Your task to perform on an android device: open app "The Home Depot" (install if not already installed) Image 0: 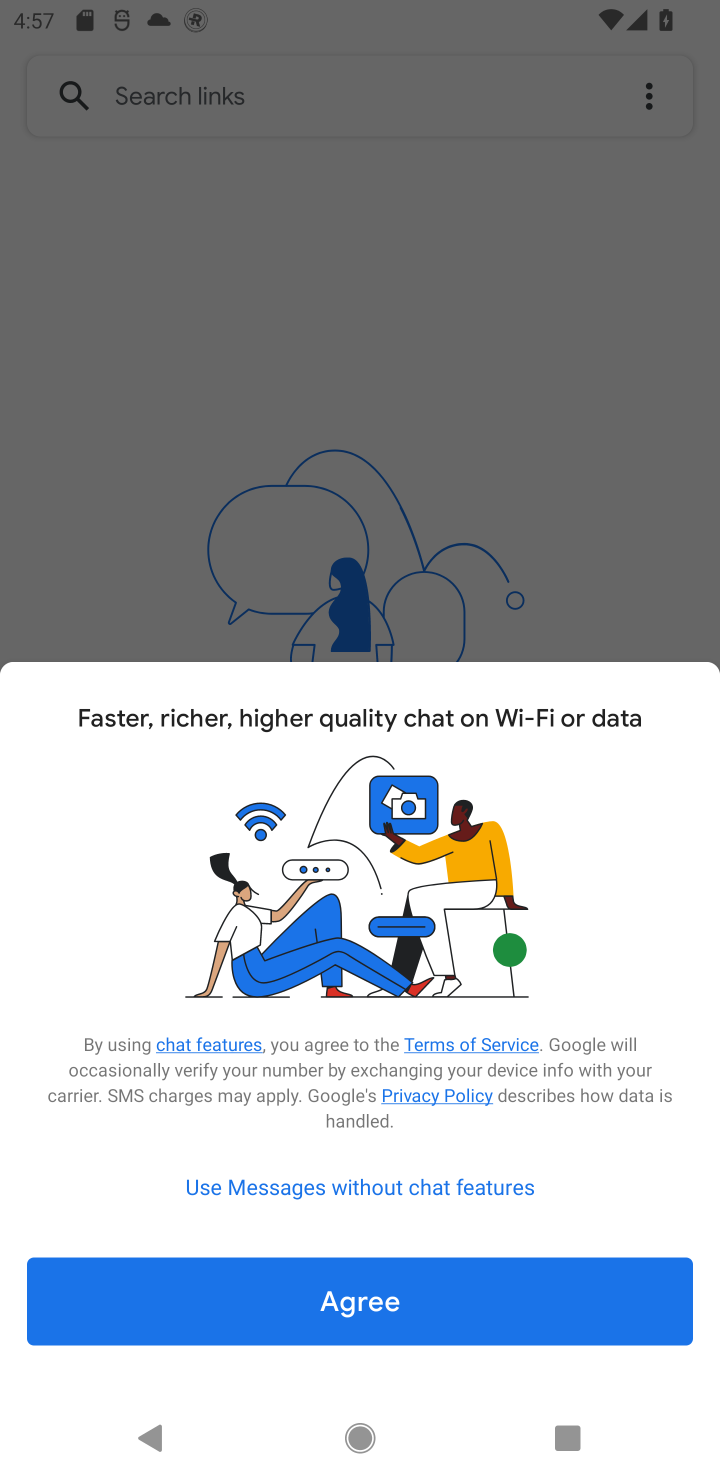
Step 0: press home button
Your task to perform on an android device: open app "The Home Depot" (install if not already installed) Image 1: 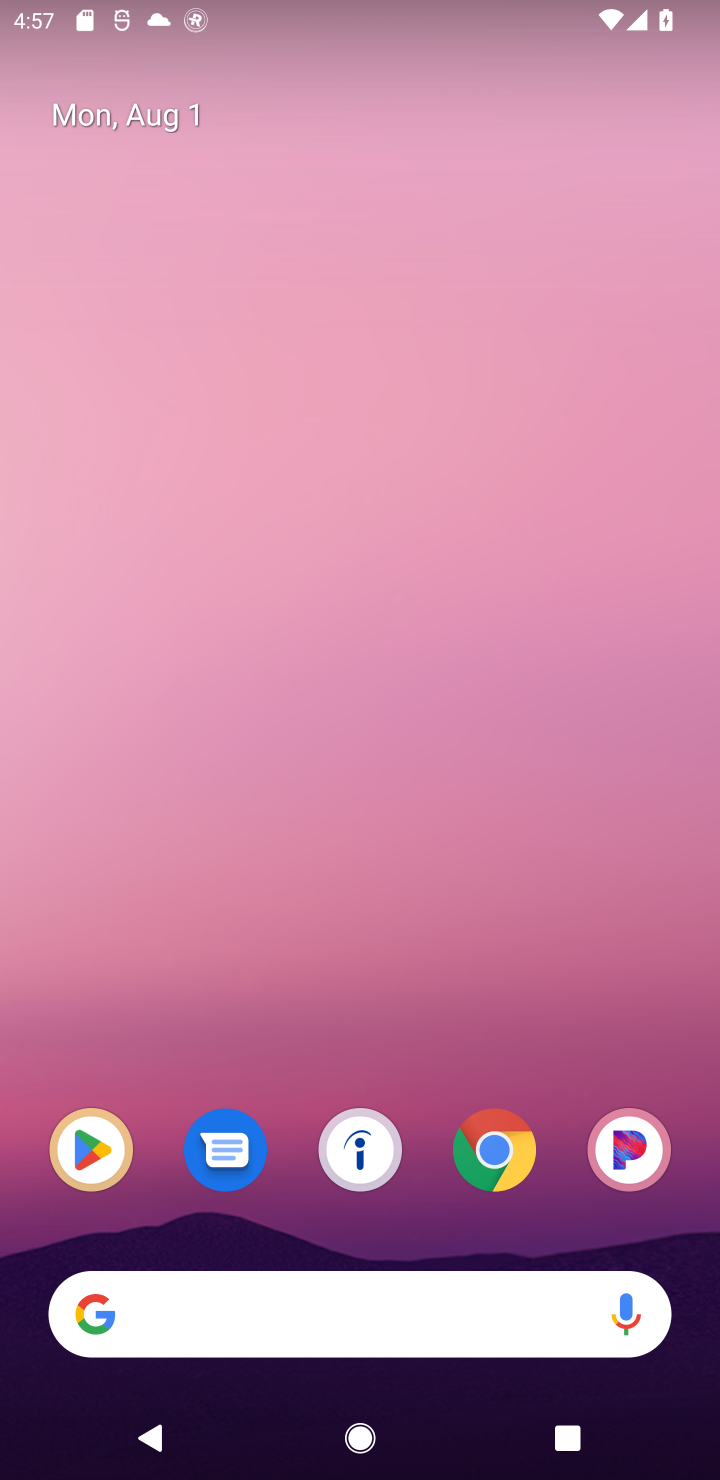
Step 1: click (102, 1173)
Your task to perform on an android device: open app "The Home Depot" (install if not already installed) Image 2: 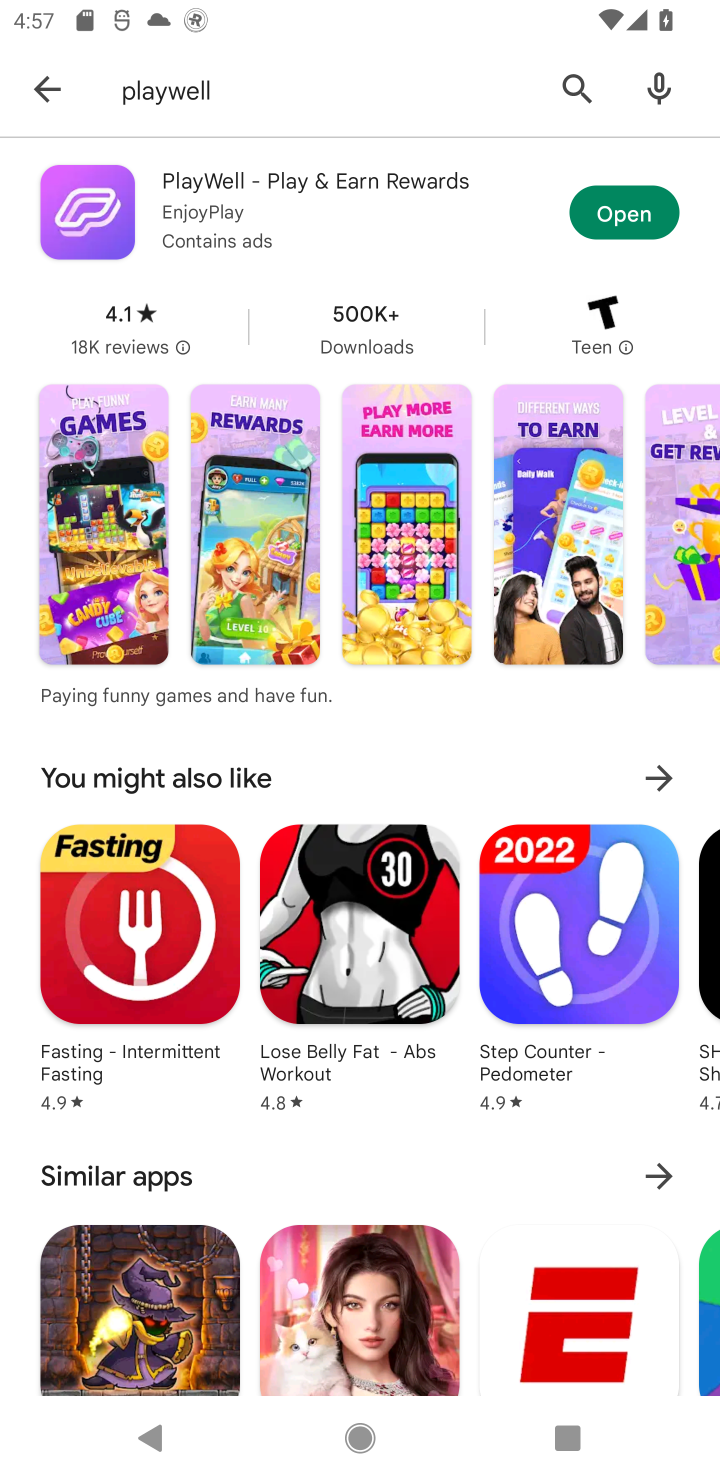
Step 2: click (595, 91)
Your task to perform on an android device: open app "The Home Depot" (install if not already installed) Image 3: 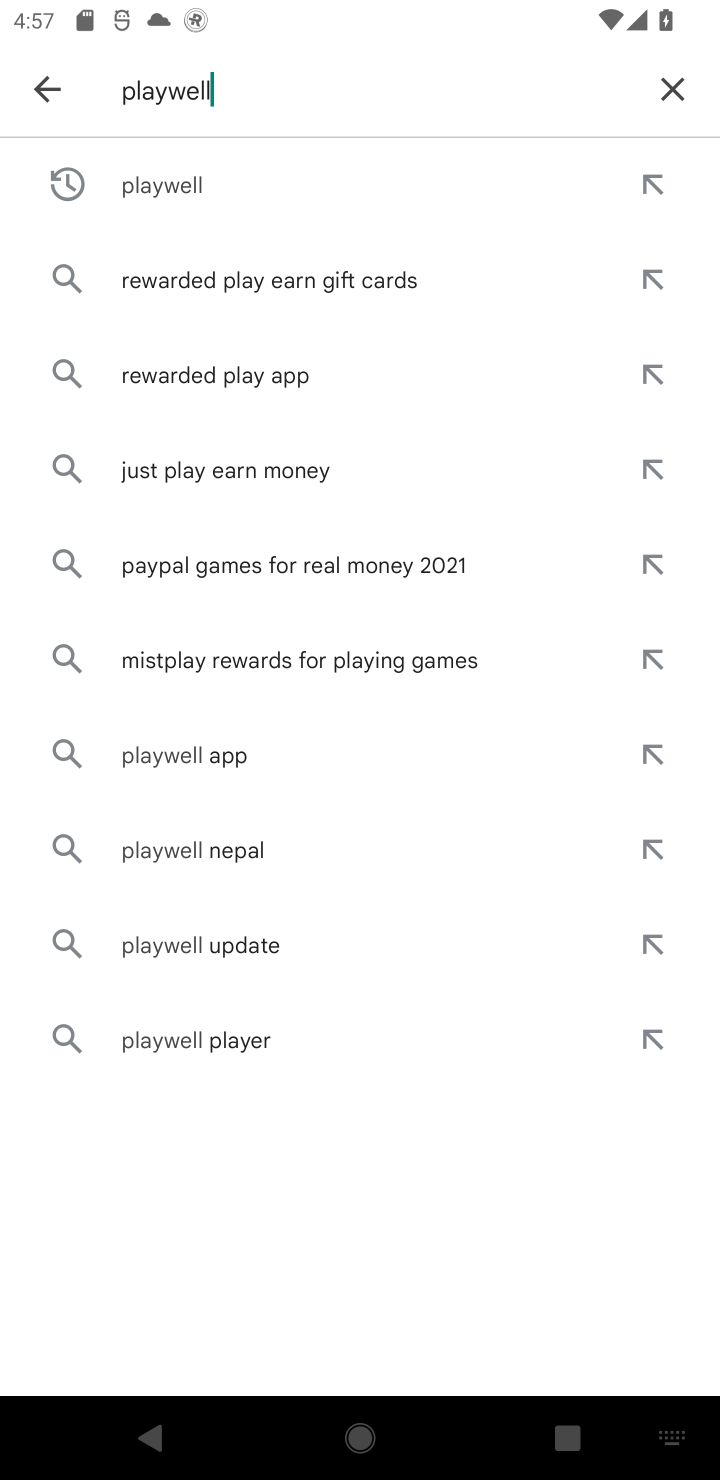
Step 3: click (665, 92)
Your task to perform on an android device: open app "The Home Depot" (install if not already installed) Image 4: 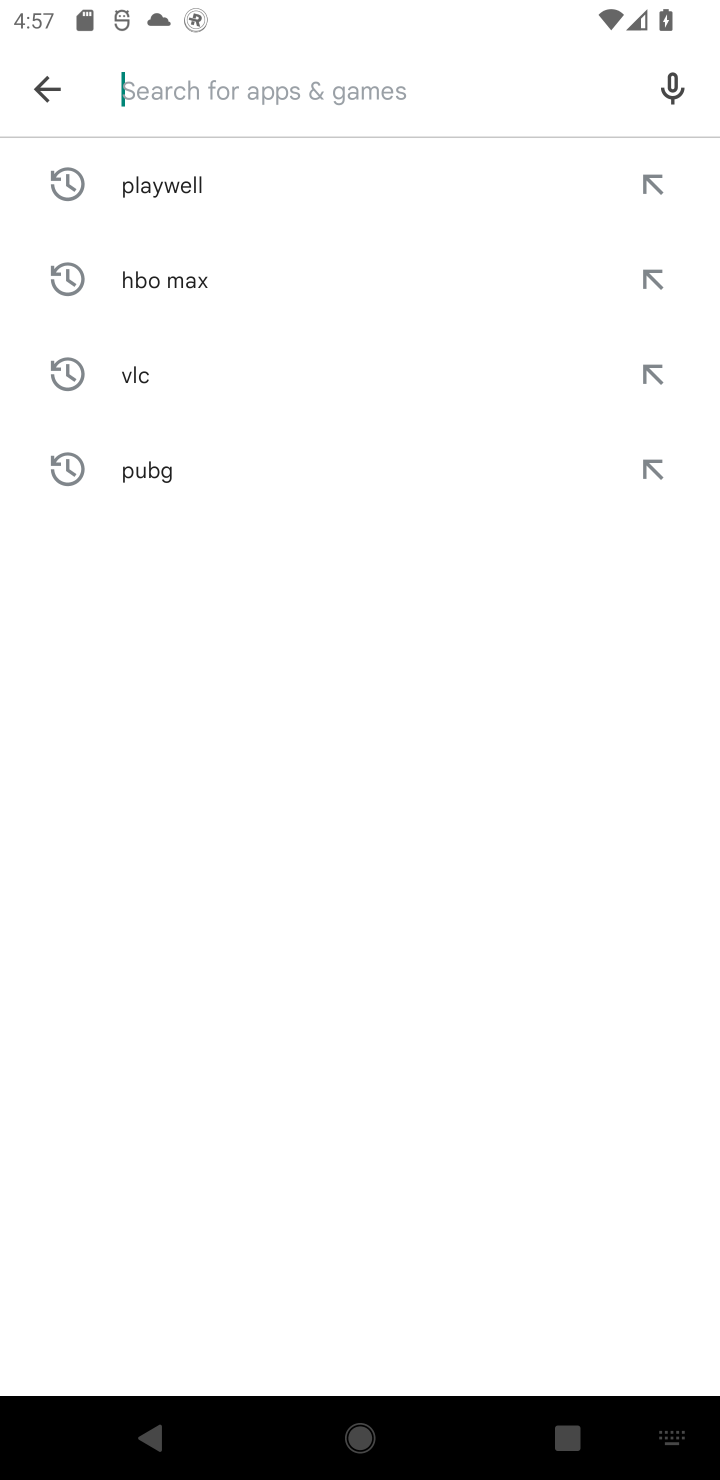
Step 4: type "home  depot"
Your task to perform on an android device: open app "The Home Depot" (install if not already installed) Image 5: 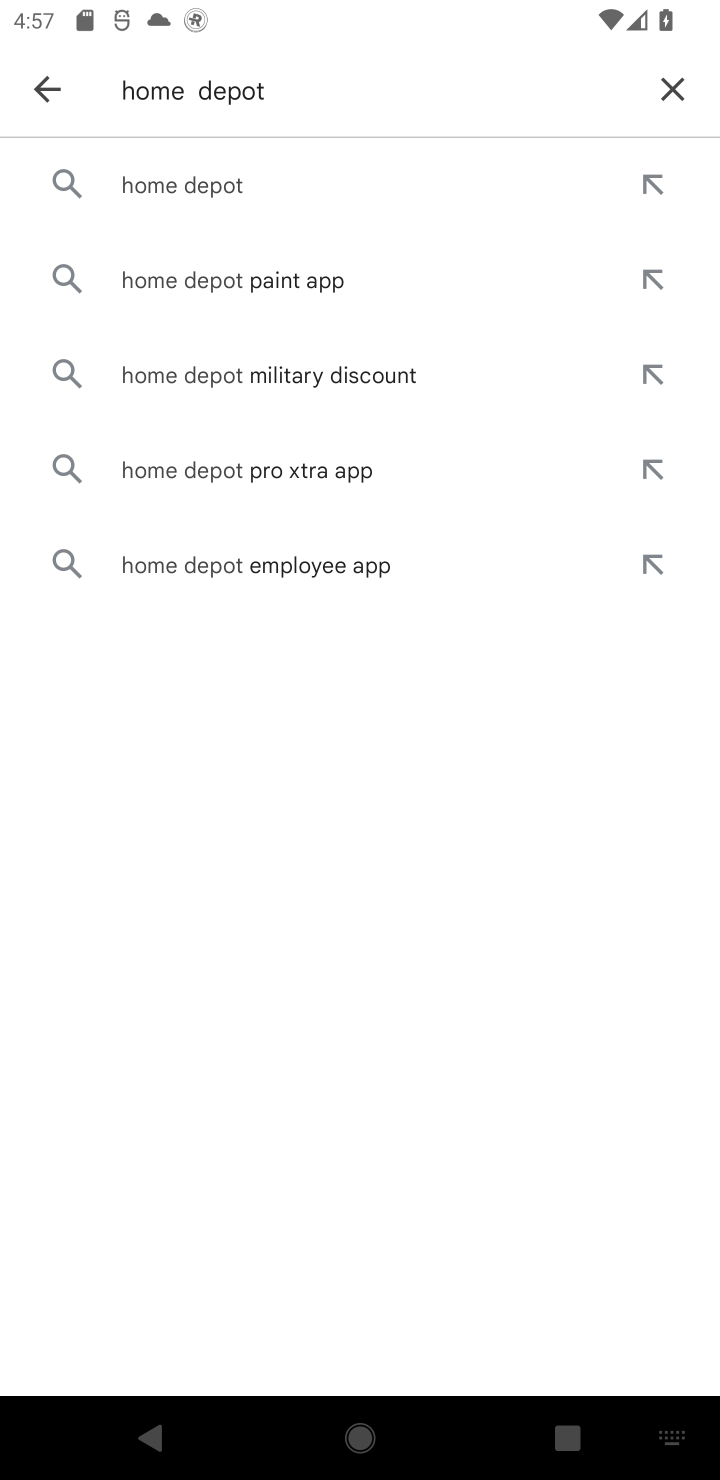
Step 5: click (309, 193)
Your task to perform on an android device: open app "The Home Depot" (install if not already installed) Image 6: 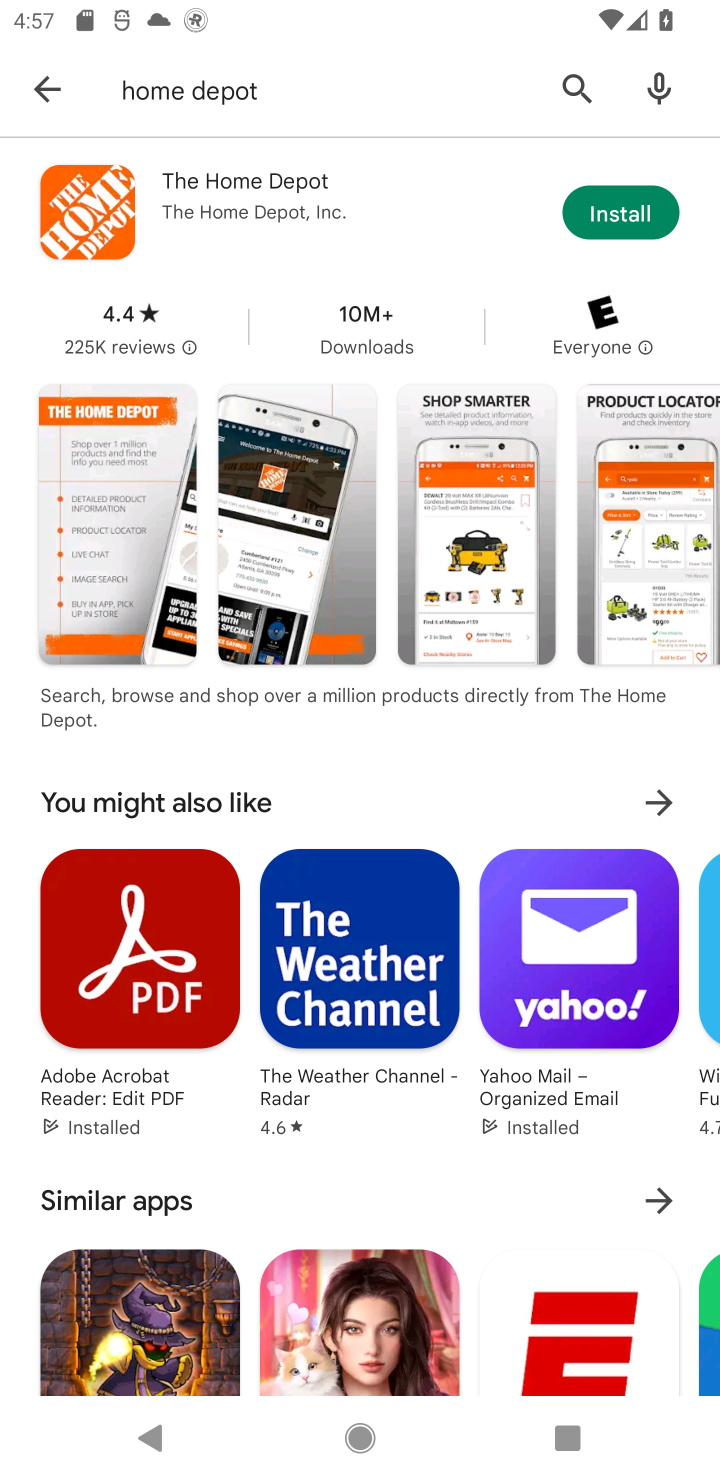
Step 6: task complete